Your task to perform on an android device: turn off sleep mode Image 0: 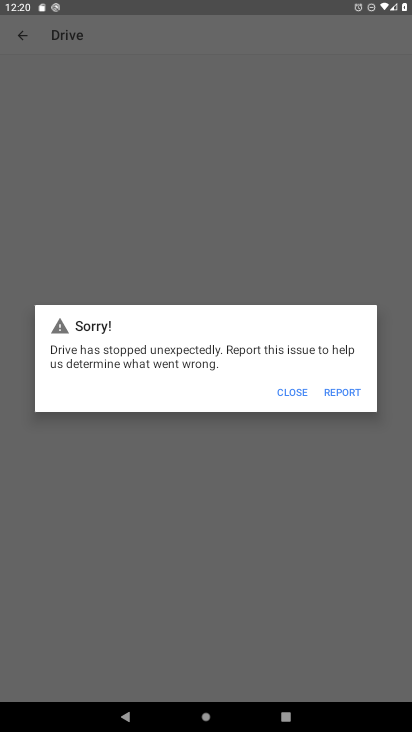
Step 0: press home button
Your task to perform on an android device: turn off sleep mode Image 1: 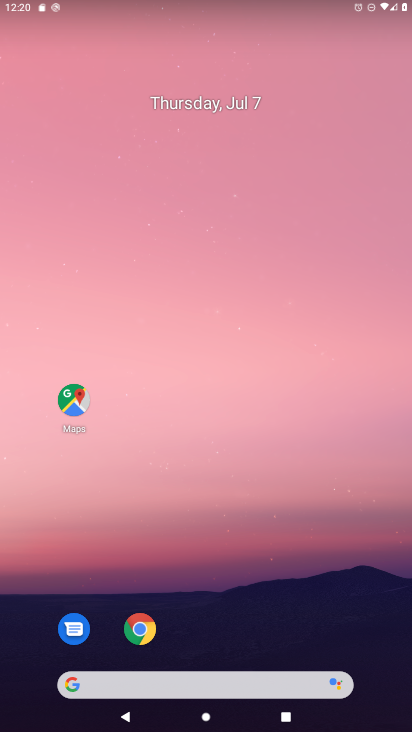
Step 1: drag from (214, 614) to (216, 129)
Your task to perform on an android device: turn off sleep mode Image 2: 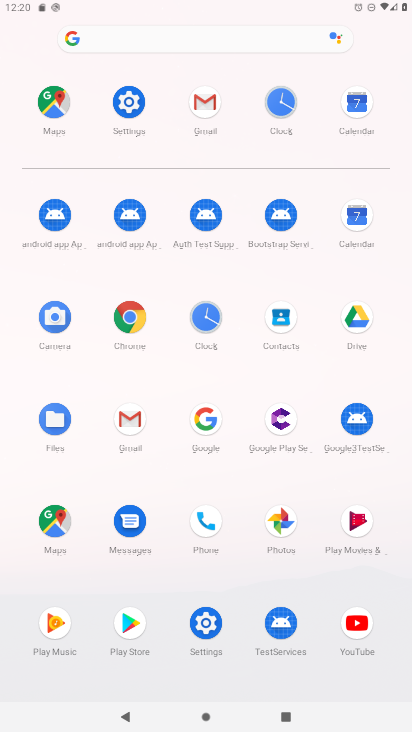
Step 2: click (139, 102)
Your task to perform on an android device: turn off sleep mode Image 3: 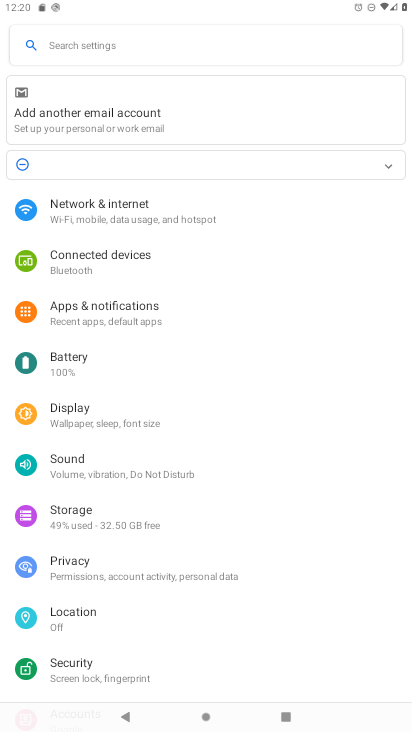
Step 3: click (117, 416)
Your task to perform on an android device: turn off sleep mode Image 4: 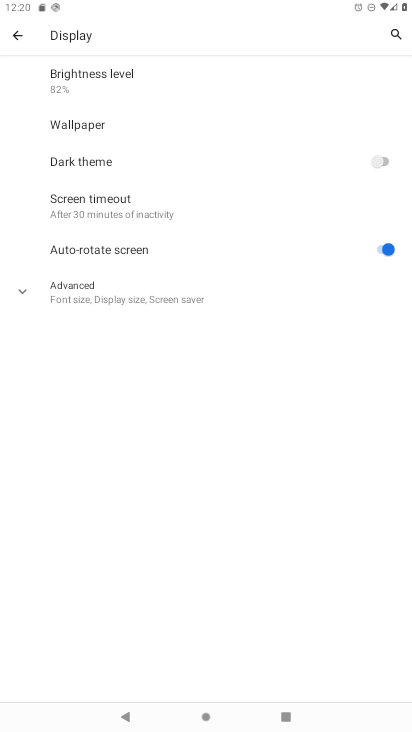
Step 4: click (143, 201)
Your task to perform on an android device: turn off sleep mode Image 5: 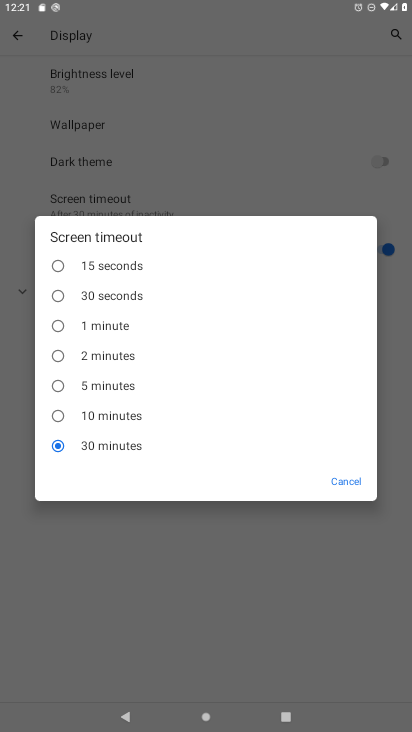
Step 5: click (133, 318)
Your task to perform on an android device: turn off sleep mode Image 6: 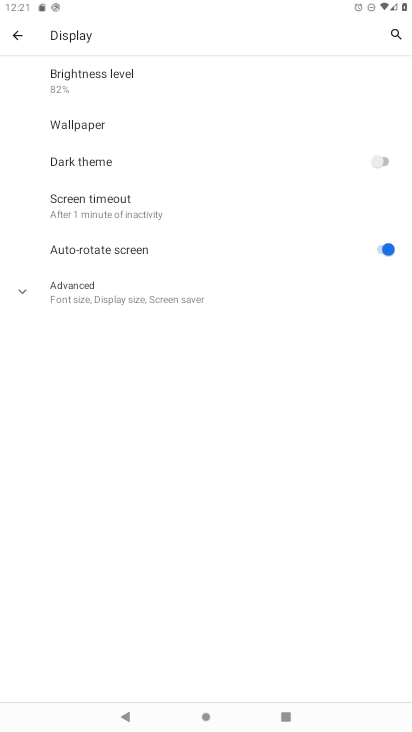
Step 6: task complete